Your task to perform on an android device: What's the weather? Image 0: 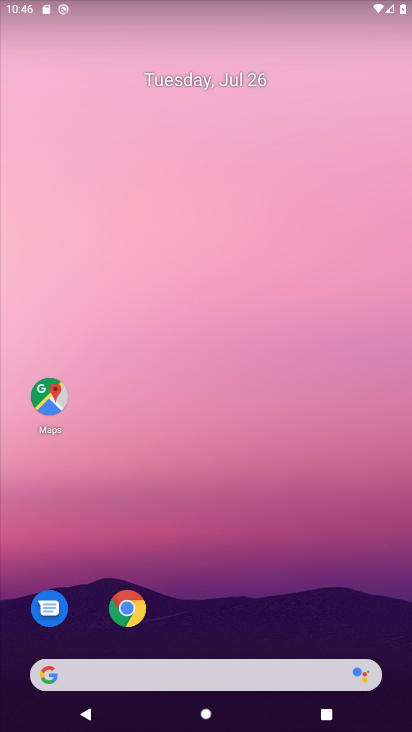
Step 0: drag from (287, 616) to (276, 26)
Your task to perform on an android device: What's the weather? Image 1: 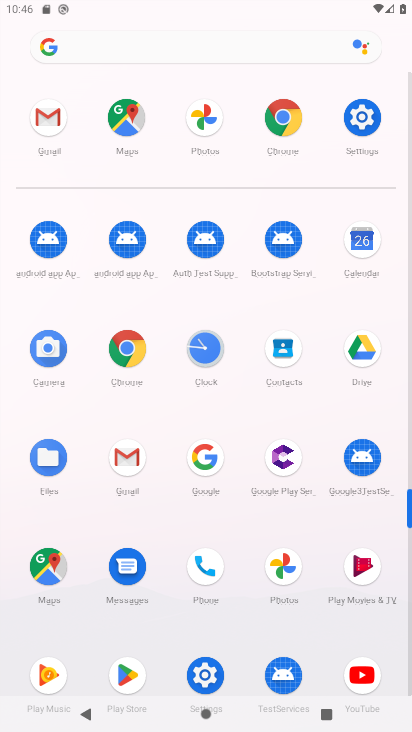
Step 1: click (282, 117)
Your task to perform on an android device: What's the weather? Image 2: 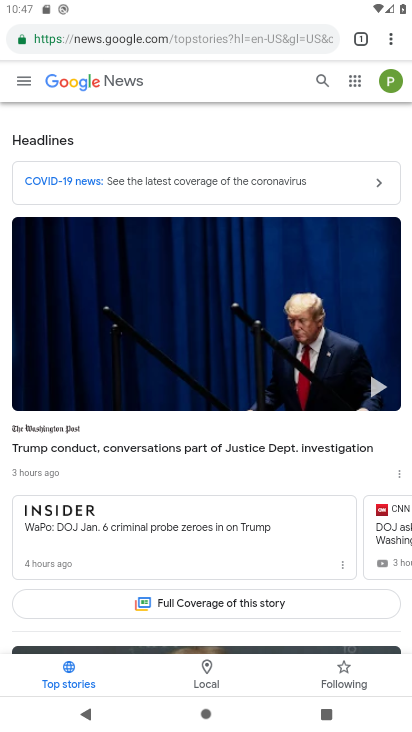
Step 2: click (192, 31)
Your task to perform on an android device: What's the weather? Image 3: 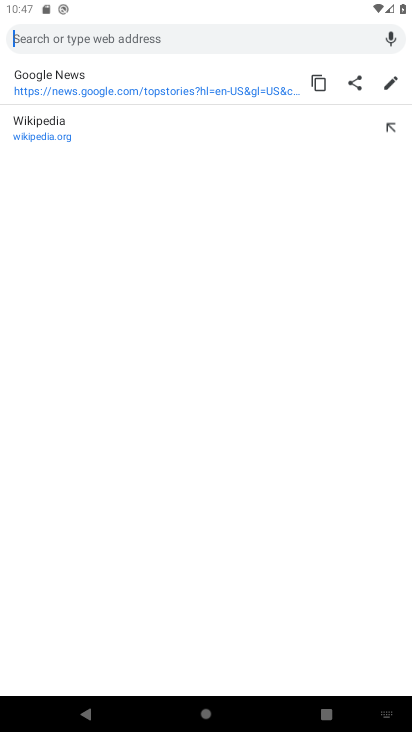
Step 3: type "weather"
Your task to perform on an android device: What's the weather? Image 4: 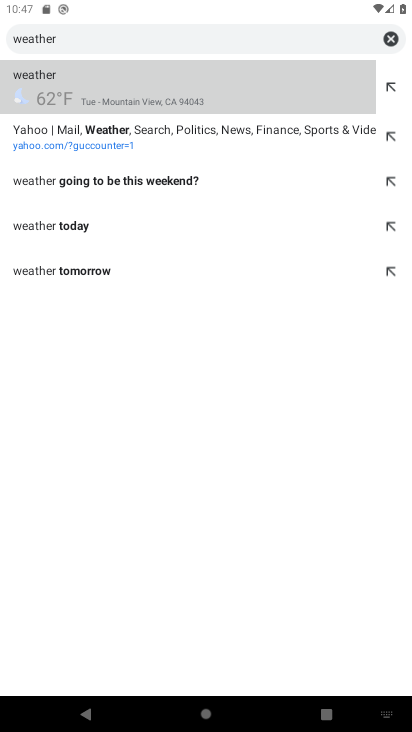
Step 4: click (123, 89)
Your task to perform on an android device: What's the weather? Image 5: 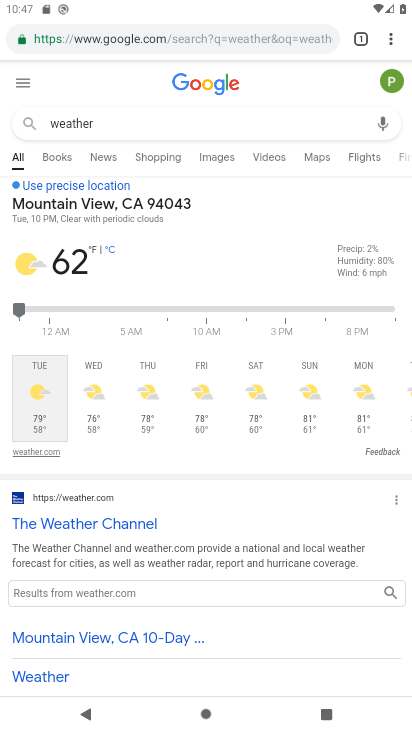
Step 5: task complete